Your task to perform on an android device: Open Google Chrome and open the bookmarks view Image 0: 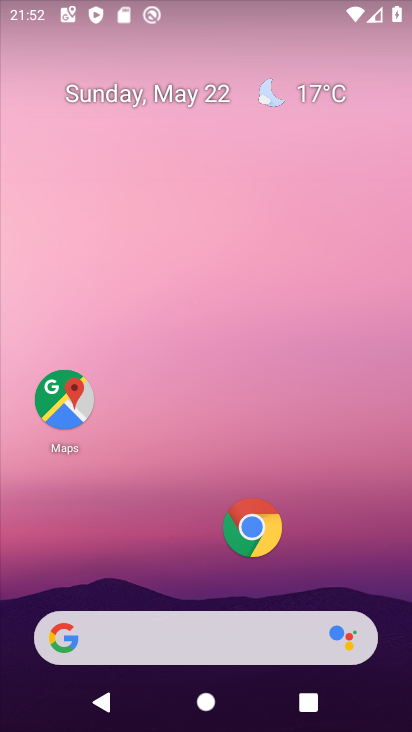
Step 0: click (248, 537)
Your task to perform on an android device: Open Google Chrome and open the bookmarks view Image 1: 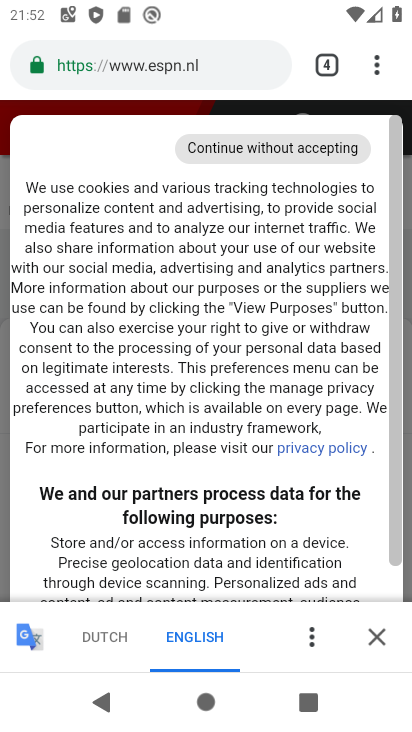
Step 1: click (371, 67)
Your task to perform on an android device: Open Google Chrome and open the bookmarks view Image 2: 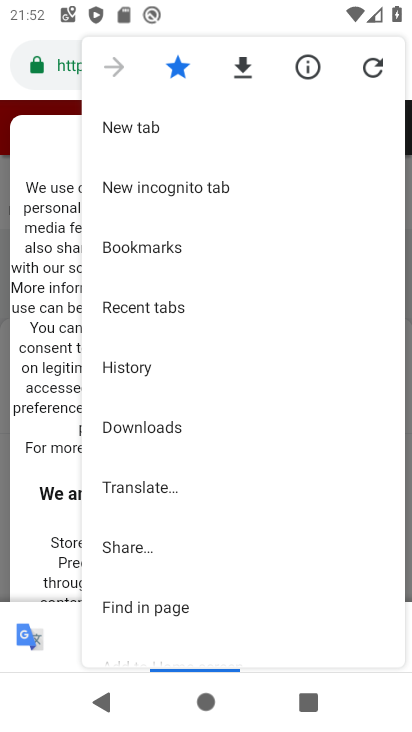
Step 2: drag from (224, 524) to (197, 147)
Your task to perform on an android device: Open Google Chrome and open the bookmarks view Image 3: 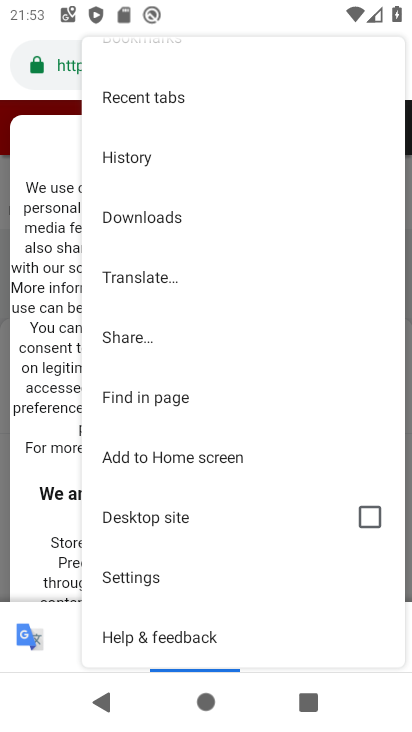
Step 3: drag from (270, 178) to (406, 546)
Your task to perform on an android device: Open Google Chrome and open the bookmarks view Image 4: 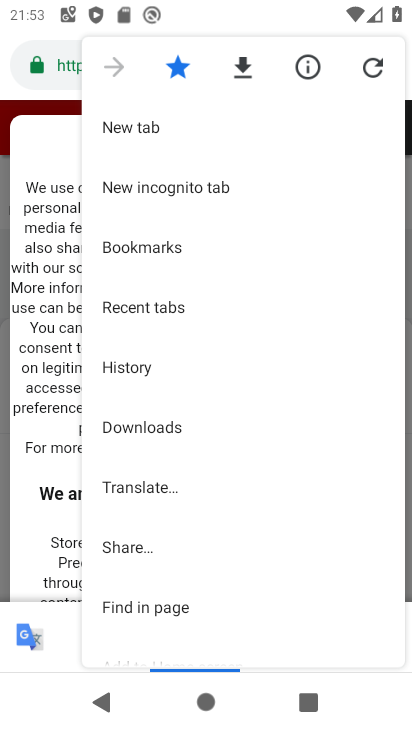
Step 4: click (141, 246)
Your task to perform on an android device: Open Google Chrome and open the bookmarks view Image 5: 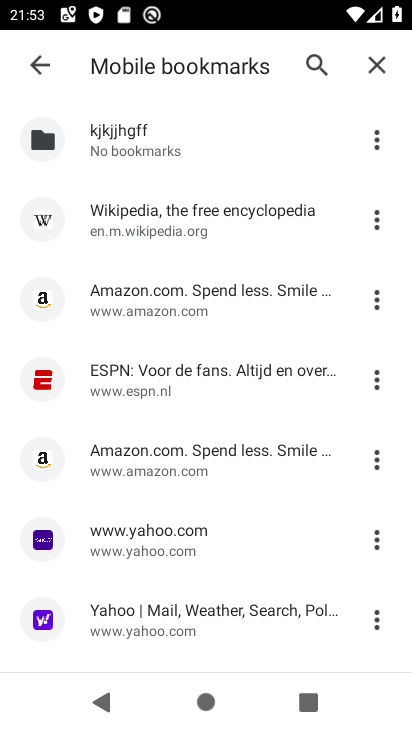
Step 5: click (376, 146)
Your task to perform on an android device: Open Google Chrome and open the bookmarks view Image 6: 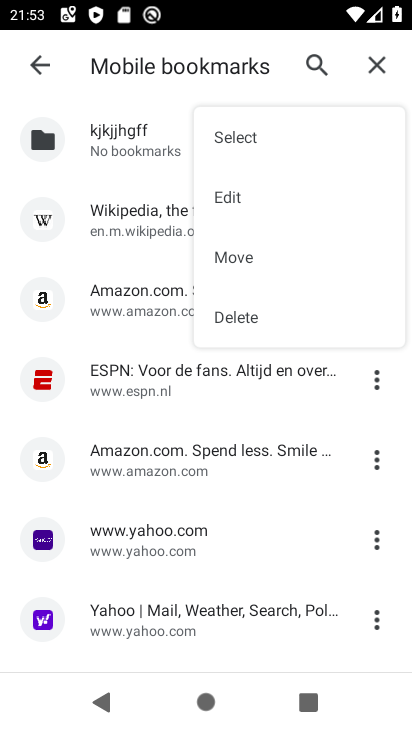
Step 6: click (225, 206)
Your task to perform on an android device: Open Google Chrome and open the bookmarks view Image 7: 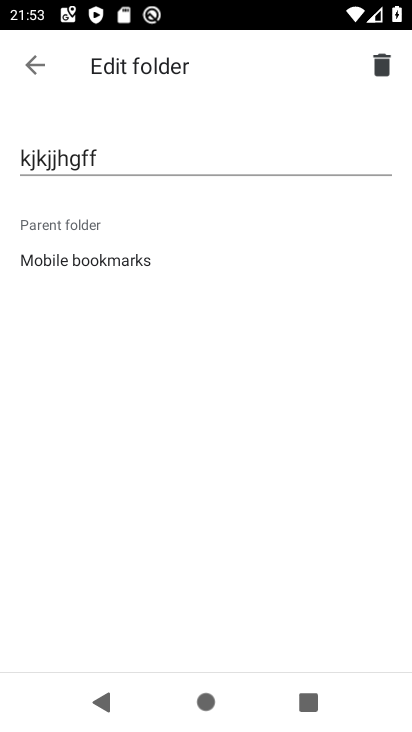
Step 7: task complete